Your task to perform on an android device: Search for apple airpods on amazon, select the first entry, add it to the cart, then select checkout. Image 0: 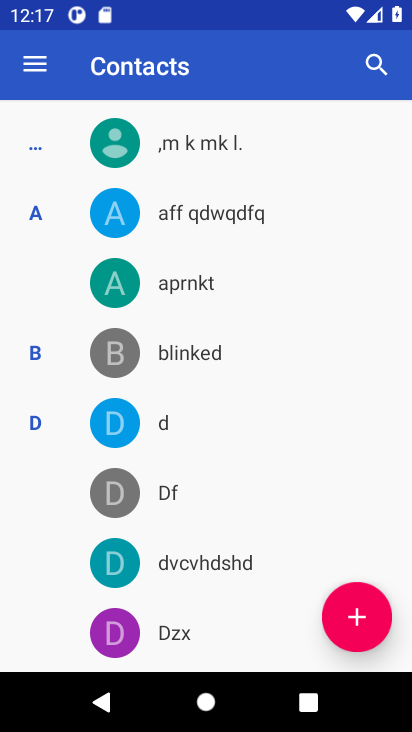
Step 0: press home button
Your task to perform on an android device: Search for apple airpods on amazon, select the first entry, add it to the cart, then select checkout. Image 1: 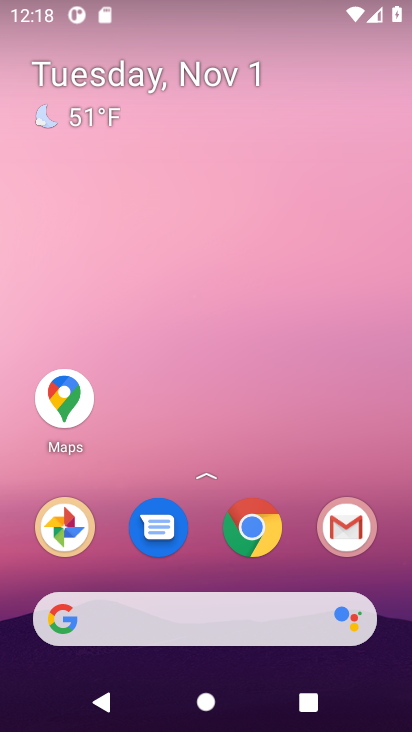
Step 1: click (251, 530)
Your task to perform on an android device: Search for apple airpods on amazon, select the first entry, add it to the cart, then select checkout. Image 2: 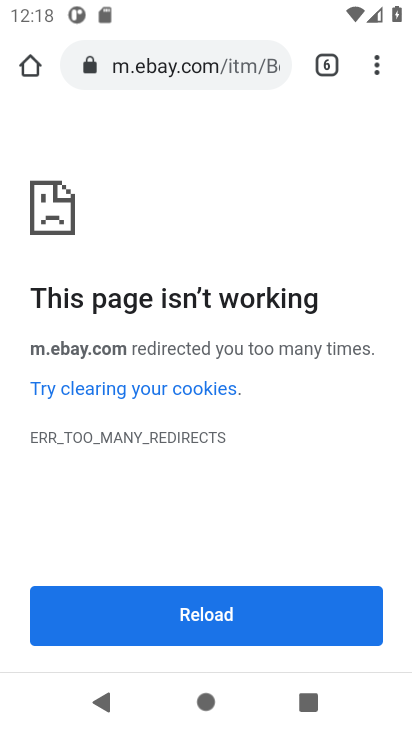
Step 2: click (178, 39)
Your task to perform on an android device: Search for apple airpods on amazon, select the first entry, add it to the cart, then select checkout. Image 3: 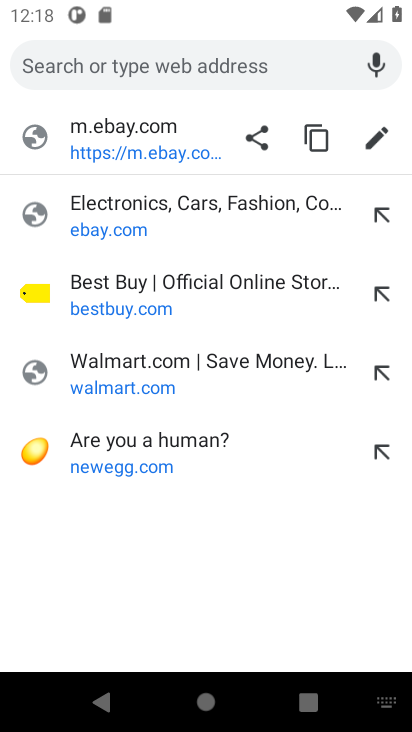
Step 3: type "amazon"
Your task to perform on an android device: Search for apple airpods on amazon, select the first entry, add it to the cart, then select checkout. Image 4: 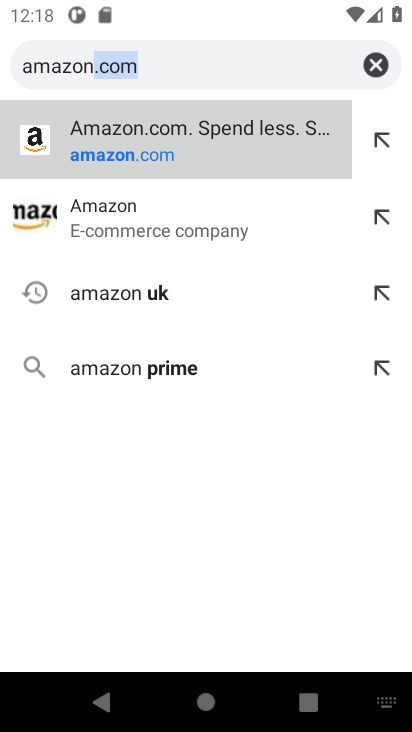
Step 4: click (118, 131)
Your task to perform on an android device: Search for apple airpods on amazon, select the first entry, add it to the cart, then select checkout. Image 5: 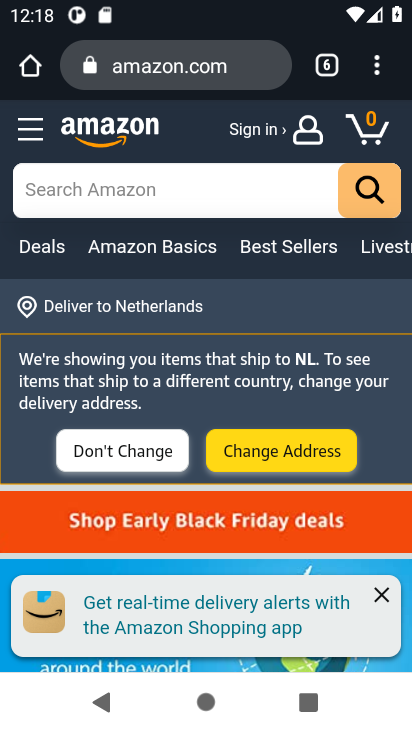
Step 5: click (125, 184)
Your task to perform on an android device: Search for apple airpods on amazon, select the first entry, add it to the cart, then select checkout. Image 6: 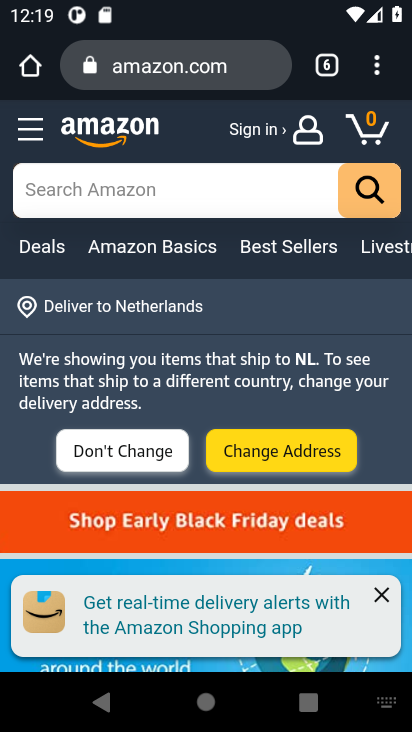
Step 6: click (142, 179)
Your task to perform on an android device: Search for apple airpods on amazon, select the first entry, add it to the cart, then select checkout. Image 7: 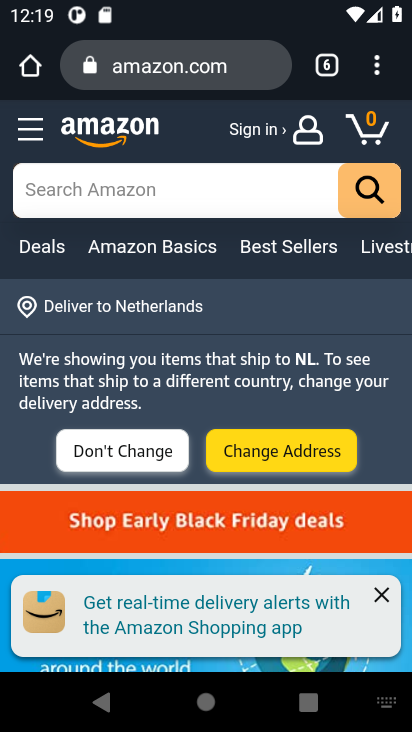
Step 7: type "apple airpods"
Your task to perform on an android device: Search for apple airpods on amazon, select the first entry, add it to the cart, then select checkout. Image 8: 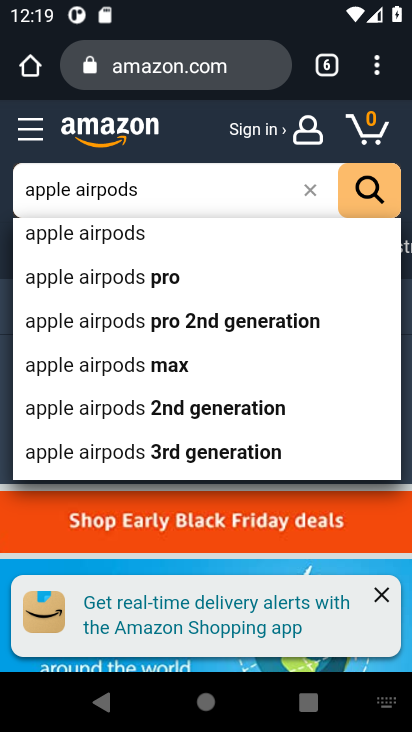
Step 8: click (128, 238)
Your task to perform on an android device: Search for apple airpods on amazon, select the first entry, add it to the cart, then select checkout. Image 9: 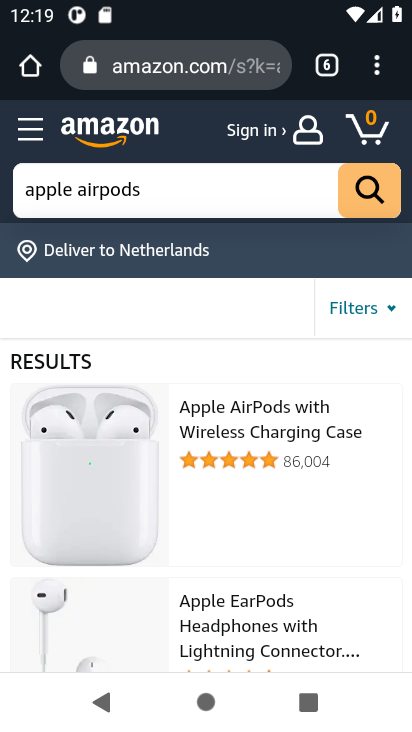
Step 9: drag from (221, 620) to (219, 101)
Your task to perform on an android device: Search for apple airpods on amazon, select the first entry, add it to the cart, then select checkout. Image 10: 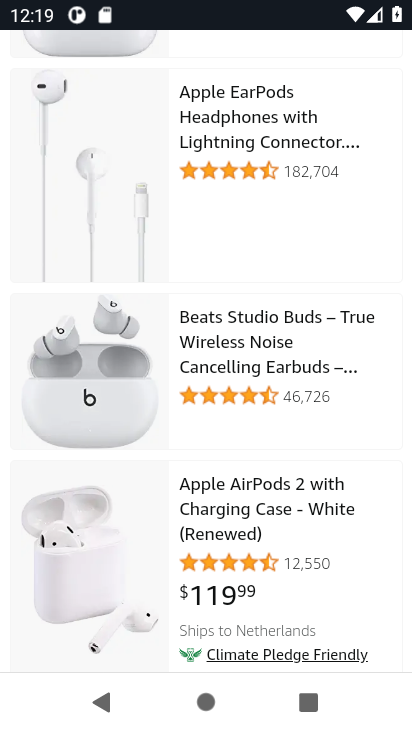
Step 10: drag from (239, 500) to (226, 245)
Your task to perform on an android device: Search for apple airpods on amazon, select the first entry, add it to the cart, then select checkout. Image 11: 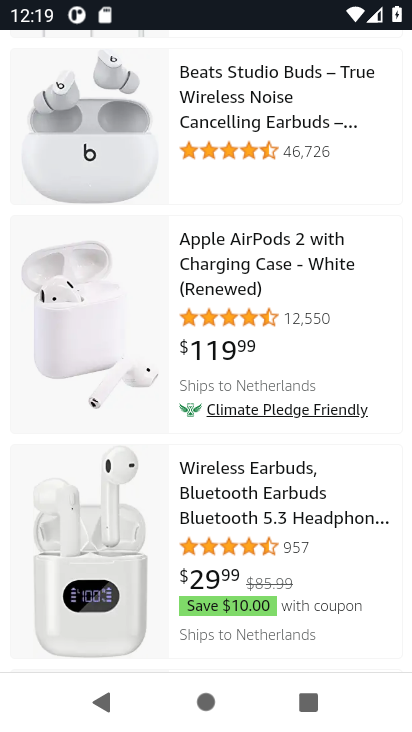
Step 11: click (215, 261)
Your task to perform on an android device: Search for apple airpods on amazon, select the first entry, add it to the cart, then select checkout. Image 12: 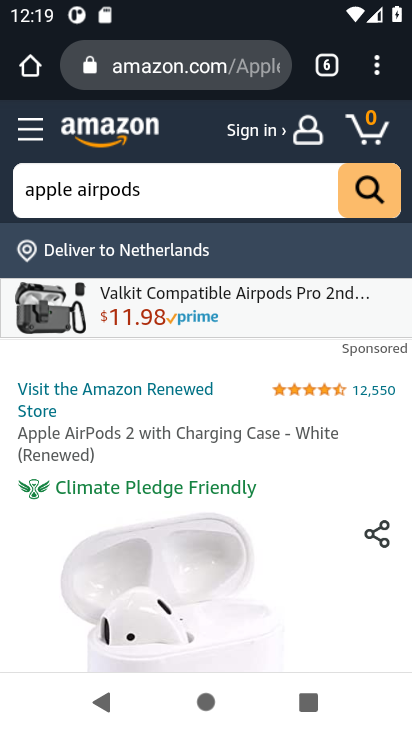
Step 12: drag from (236, 551) to (212, 275)
Your task to perform on an android device: Search for apple airpods on amazon, select the first entry, add it to the cart, then select checkout. Image 13: 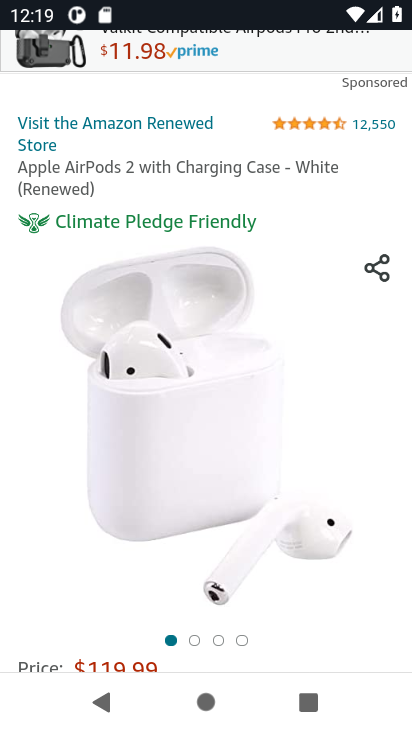
Step 13: drag from (244, 569) to (240, 275)
Your task to perform on an android device: Search for apple airpods on amazon, select the first entry, add it to the cart, then select checkout. Image 14: 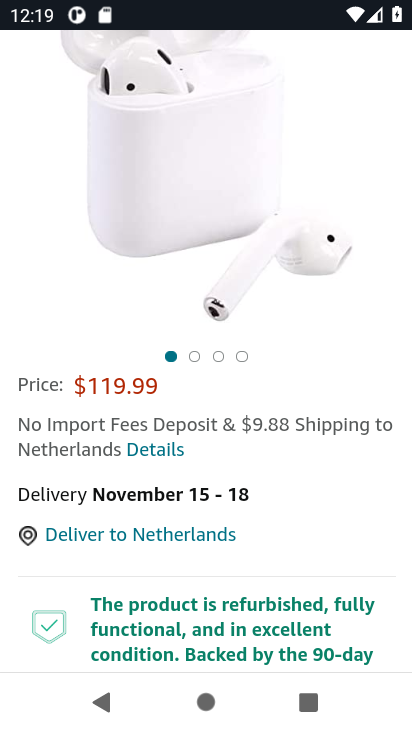
Step 14: drag from (281, 574) to (274, 162)
Your task to perform on an android device: Search for apple airpods on amazon, select the first entry, add it to the cart, then select checkout. Image 15: 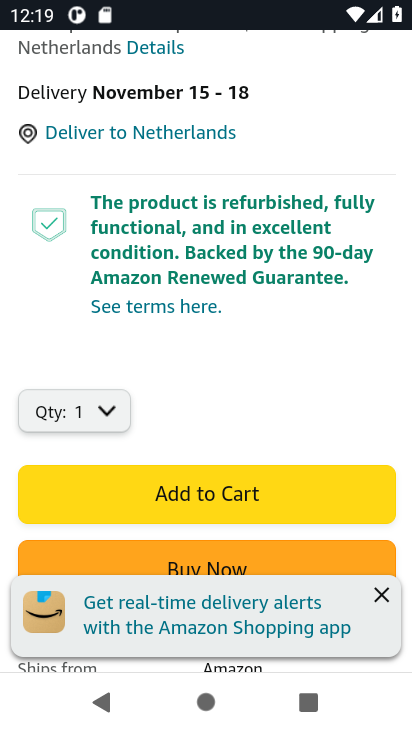
Step 15: click (194, 489)
Your task to perform on an android device: Search for apple airpods on amazon, select the first entry, add it to the cart, then select checkout. Image 16: 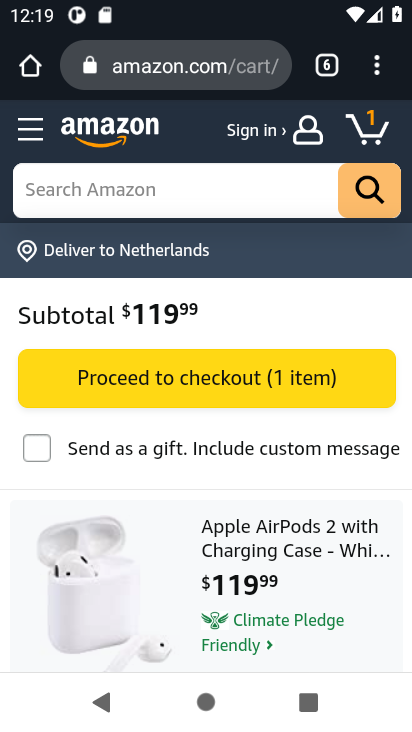
Step 16: drag from (287, 537) to (214, 144)
Your task to perform on an android device: Search for apple airpods on amazon, select the first entry, add it to the cart, then select checkout. Image 17: 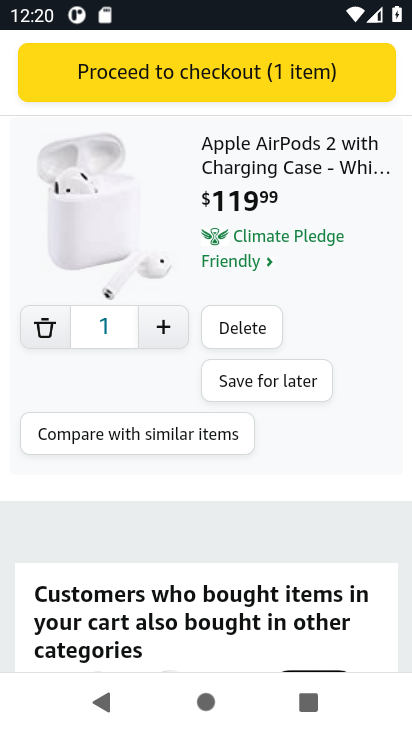
Step 17: drag from (234, 525) to (234, 374)
Your task to perform on an android device: Search for apple airpods on amazon, select the first entry, add it to the cart, then select checkout. Image 18: 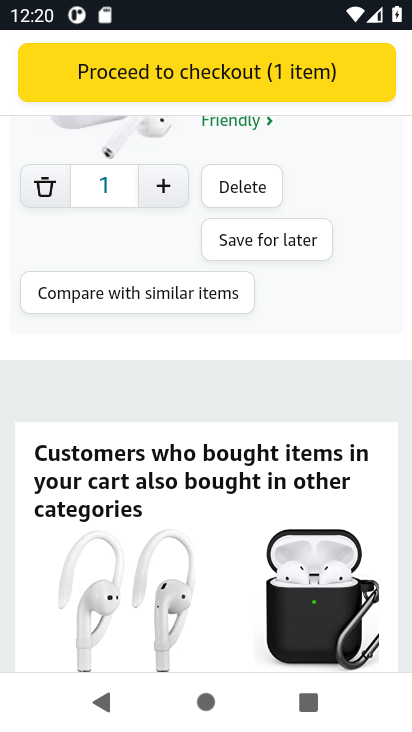
Step 18: drag from (235, 542) to (255, 369)
Your task to perform on an android device: Search for apple airpods on amazon, select the first entry, add it to the cart, then select checkout. Image 19: 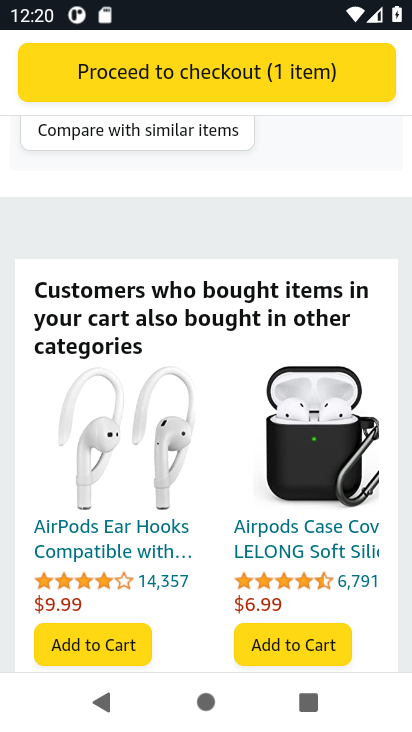
Step 19: click (186, 79)
Your task to perform on an android device: Search for apple airpods on amazon, select the first entry, add it to the cart, then select checkout. Image 20: 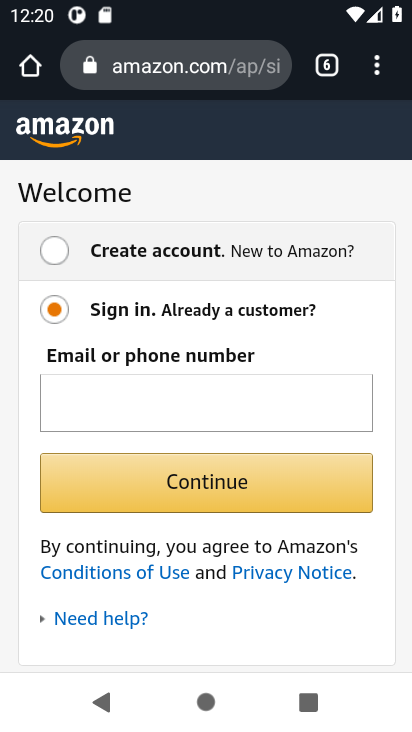
Step 20: task complete